Your task to perform on an android device: turn off translation in the chrome app Image 0: 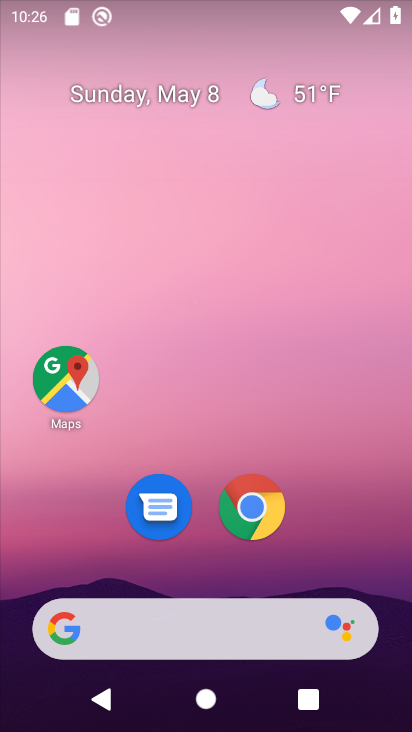
Step 0: press home button
Your task to perform on an android device: turn off translation in the chrome app Image 1: 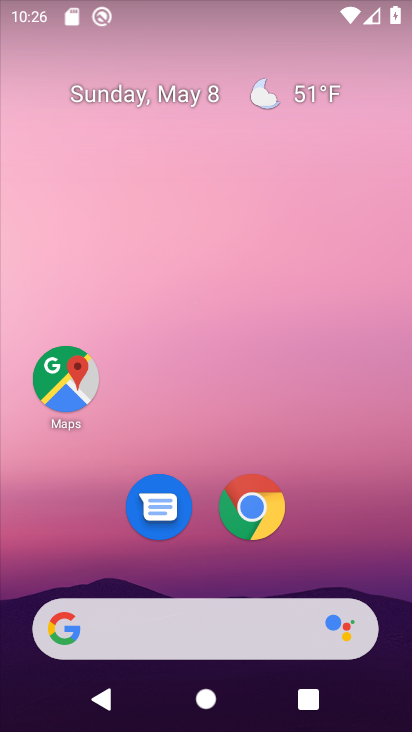
Step 1: drag from (199, 574) to (243, 22)
Your task to perform on an android device: turn off translation in the chrome app Image 2: 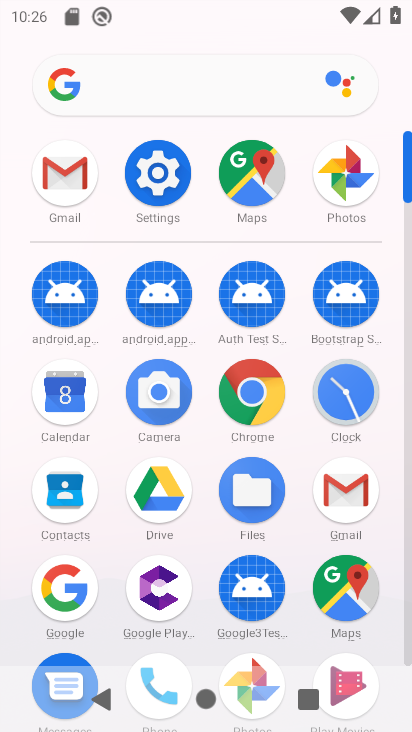
Step 2: click (247, 396)
Your task to perform on an android device: turn off translation in the chrome app Image 3: 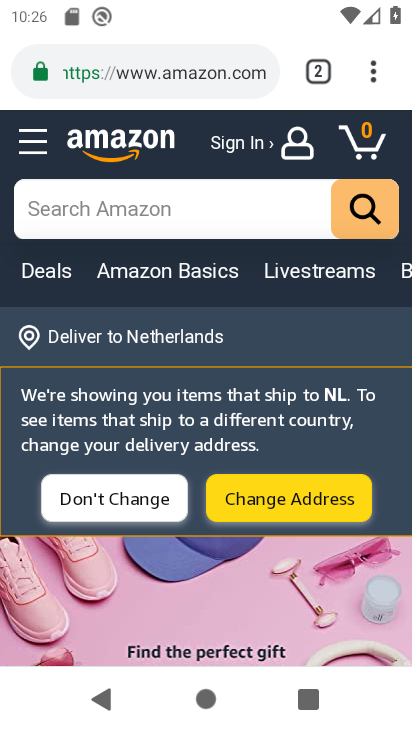
Step 3: click (375, 61)
Your task to perform on an android device: turn off translation in the chrome app Image 4: 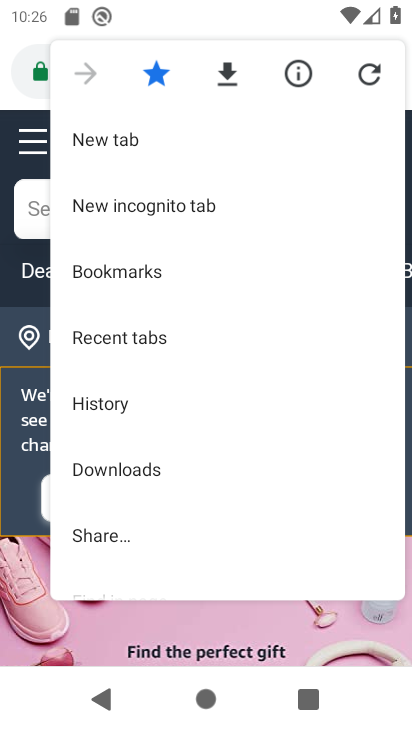
Step 4: drag from (176, 532) to (162, 94)
Your task to perform on an android device: turn off translation in the chrome app Image 5: 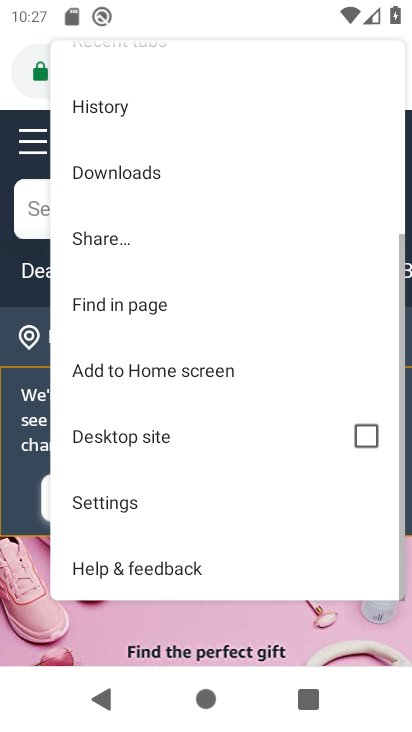
Step 5: click (150, 499)
Your task to perform on an android device: turn off translation in the chrome app Image 6: 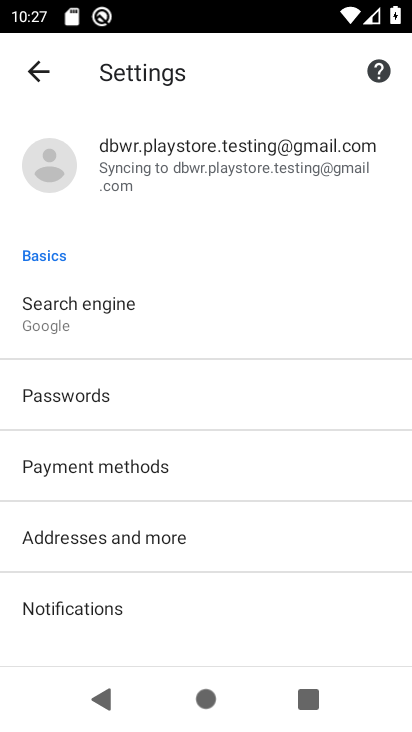
Step 6: drag from (184, 589) to (190, 83)
Your task to perform on an android device: turn off translation in the chrome app Image 7: 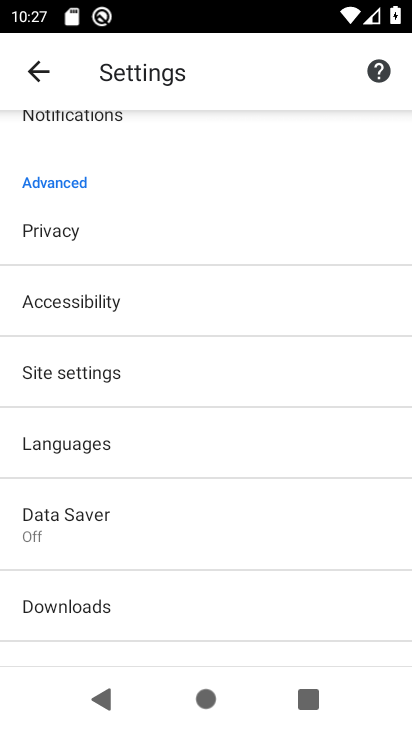
Step 7: click (136, 450)
Your task to perform on an android device: turn off translation in the chrome app Image 8: 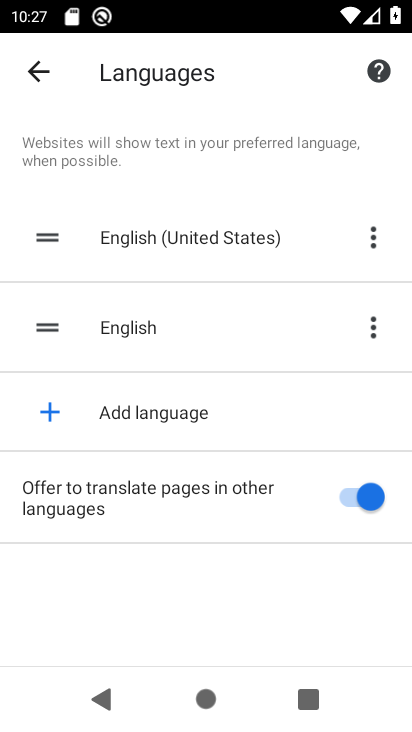
Step 8: click (342, 487)
Your task to perform on an android device: turn off translation in the chrome app Image 9: 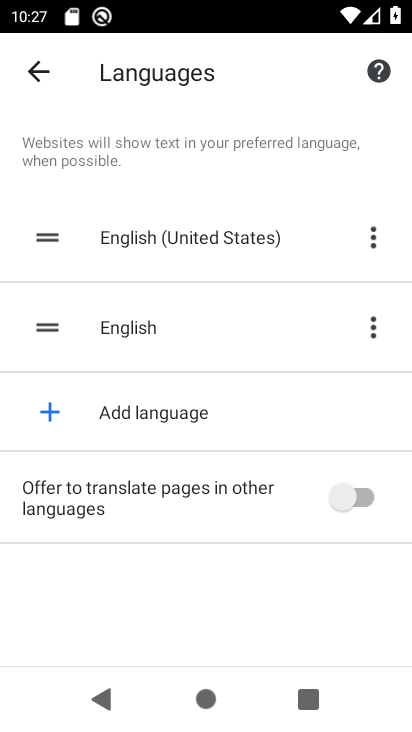
Step 9: task complete